Your task to perform on an android device: Find coffee shops on Maps Image 0: 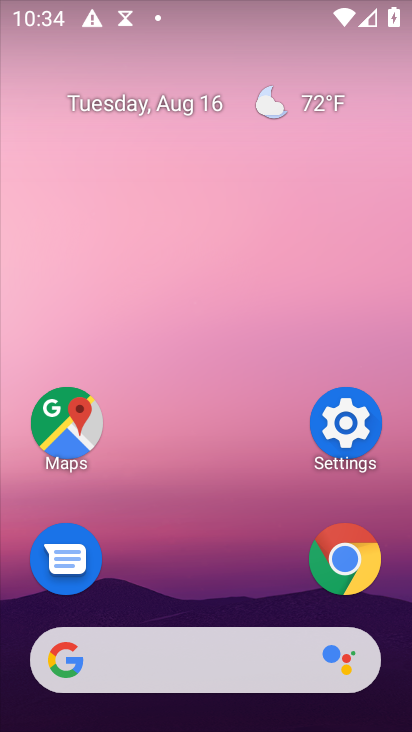
Step 0: click (64, 427)
Your task to perform on an android device: Find coffee shops on Maps Image 1: 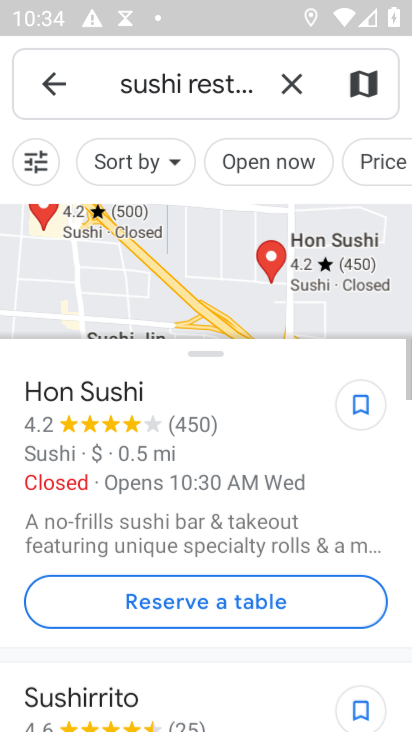
Step 1: click (282, 77)
Your task to perform on an android device: Find coffee shops on Maps Image 2: 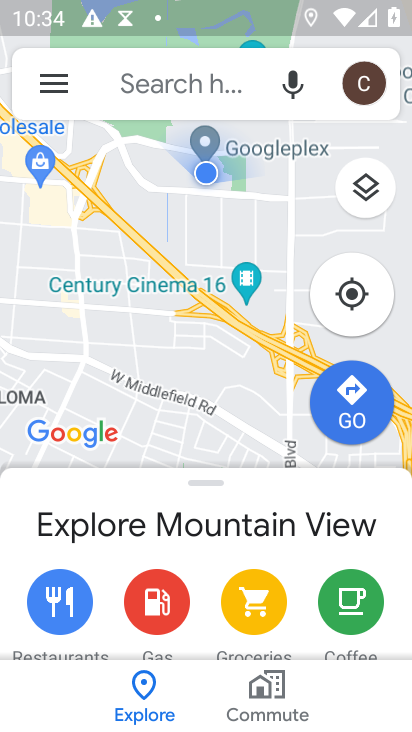
Step 2: click (186, 85)
Your task to perform on an android device: Find coffee shops on Maps Image 3: 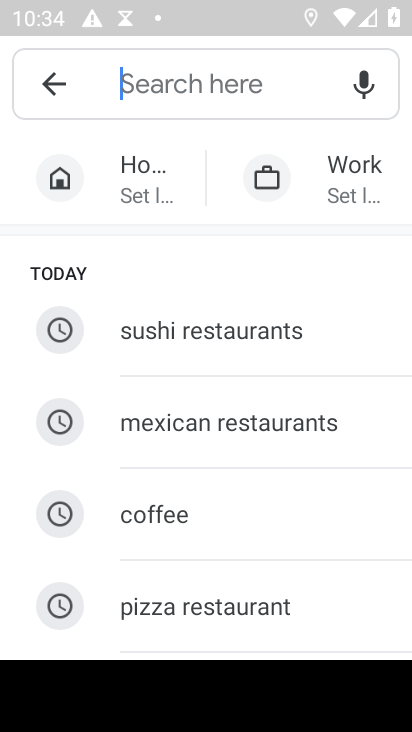
Step 3: click (167, 518)
Your task to perform on an android device: Find coffee shops on Maps Image 4: 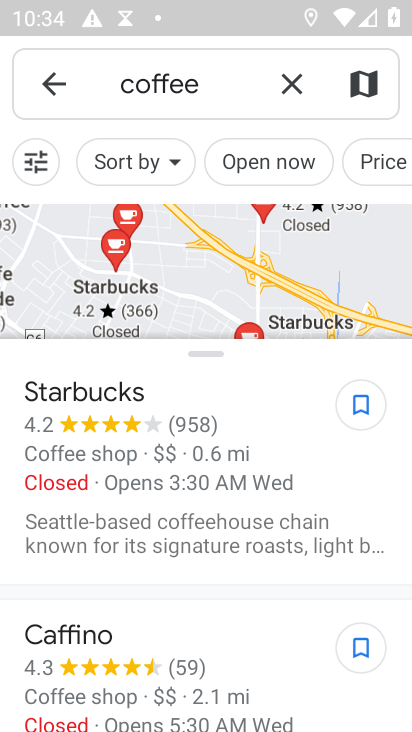
Step 4: task complete